Your task to perform on an android device: clear all cookies in the chrome app Image 0: 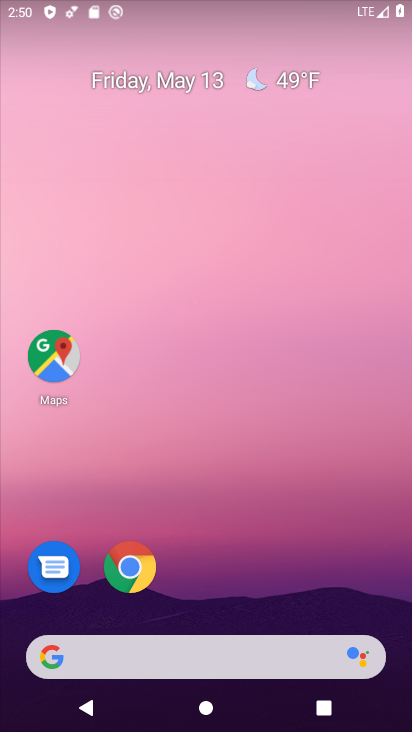
Step 0: click (126, 579)
Your task to perform on an android device: clear all cookies in the chrome app Image 1: 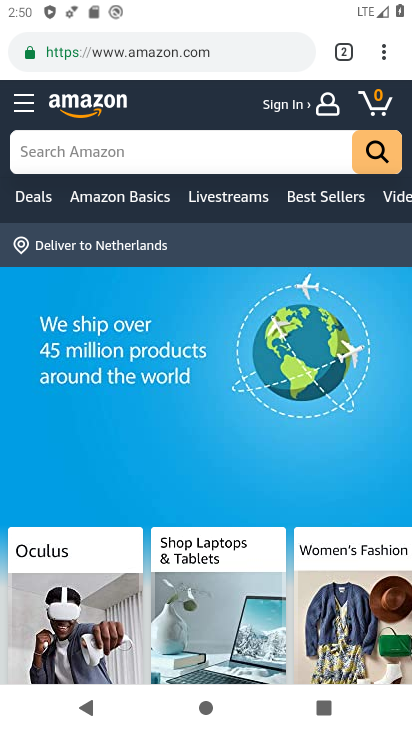
Step 1: click (389, 53)
Your task to perform on an android device: clear all cookies in the chrome app Image 2: 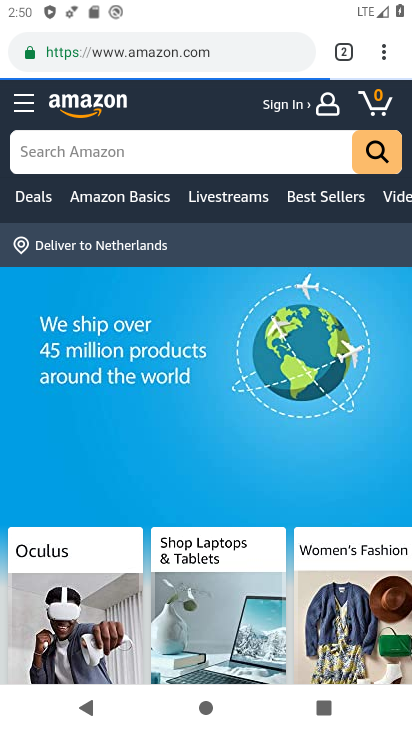
Step 2: click (389, 47)
Your task to perform on an android device: clear all cookies in the chrome app Image 3: 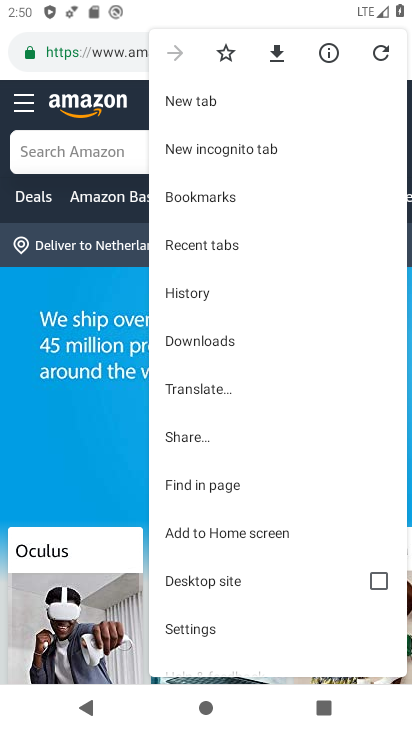
Step 3: click (197, 635)
Your task to perform on an android device: clear all cookies in the chrome app Image 4: 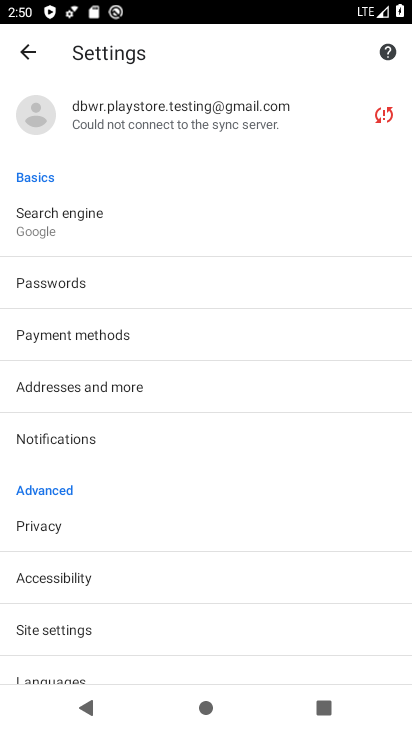
Step 4: click (51, 525)
Your task to perform on an android device: clear all cookies in the chrome app Image 5: 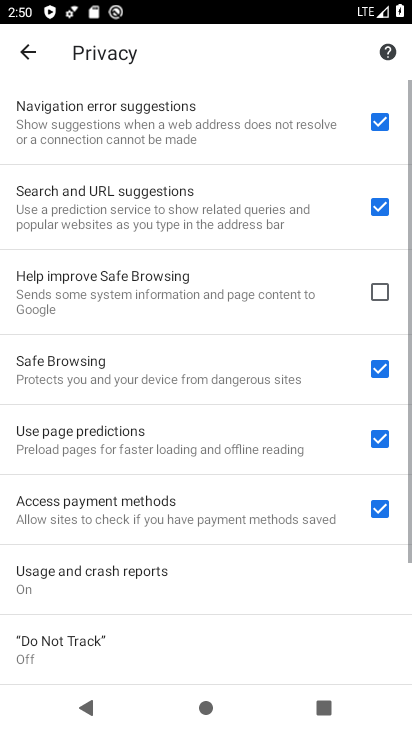
Step 5: drag from (117, 566) to (151, 105)
Your task to perform on an android device: clear all cookies in the chrome app Image 6: 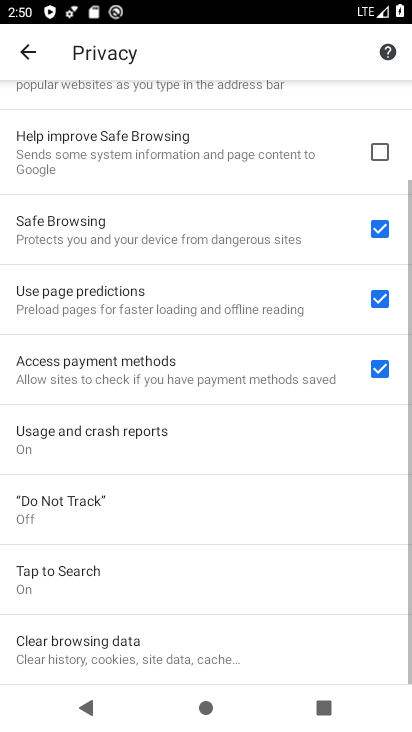
Step 6: click (196, 621)
Your task to perform on an android device: clear all cookies in the chrome app Image 7: 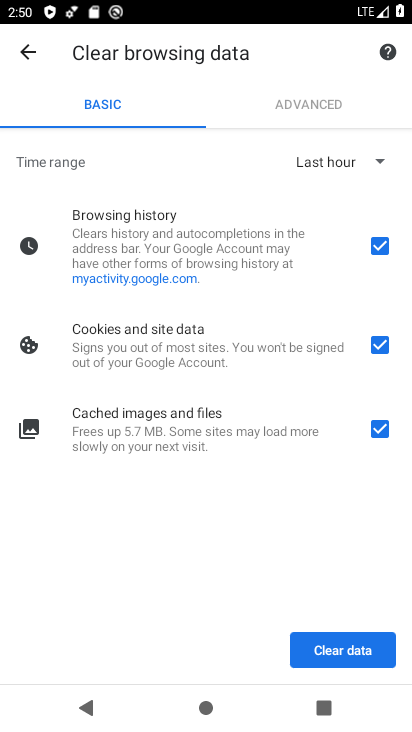
Step 7: click (339, 649)
Your task to perform on an android device: clear all cookies in the chrome app Image 8: 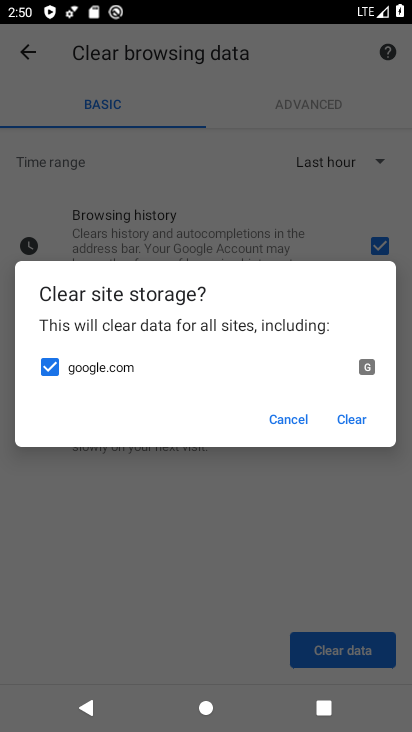
Step 8: click (355, 420)
Your task to perform on an android device: clear all cookies in the chrome app Image 9: 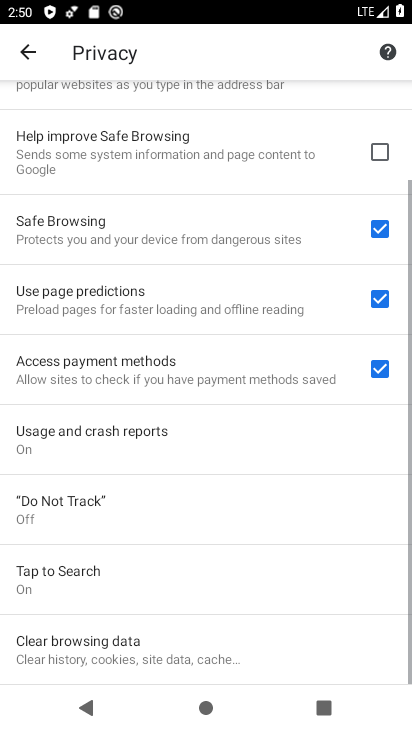
Step 9: click (359, 416)
Your task to perform on an android device: clear all cookies in the chrome app Image 10: 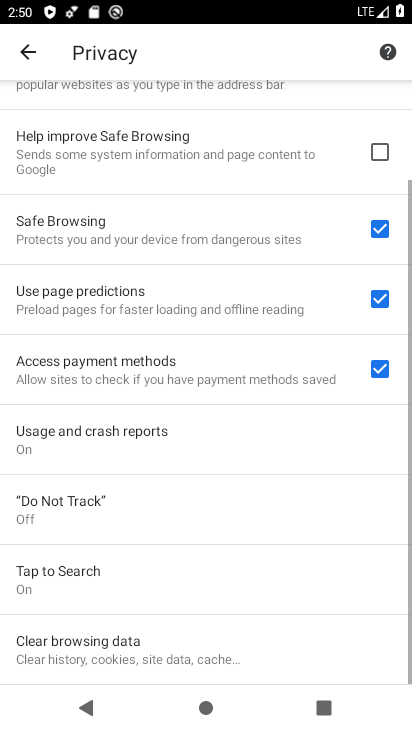
Step 10: click (359, 416)
Your task to perform on an android device: clear all cookies in the chrome app Image 11: 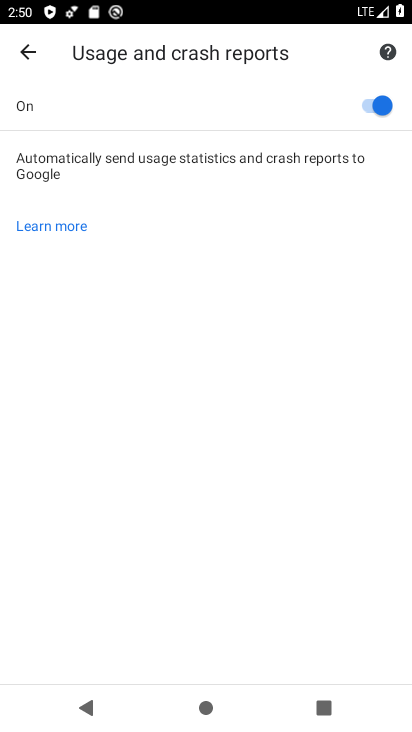
Step 11: task complete